Your task to perform on an android device: uninstall "DoorDash - Dasher" Image 0: 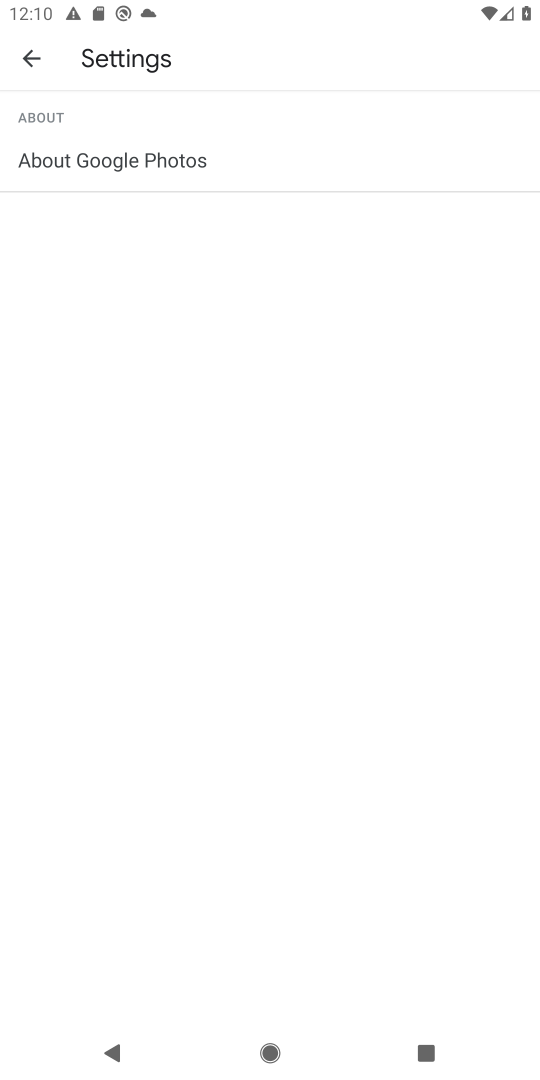
Step 0: press home button
Your task to perform on an android device: uninstall "DoorDash - Dasher" Image 1: 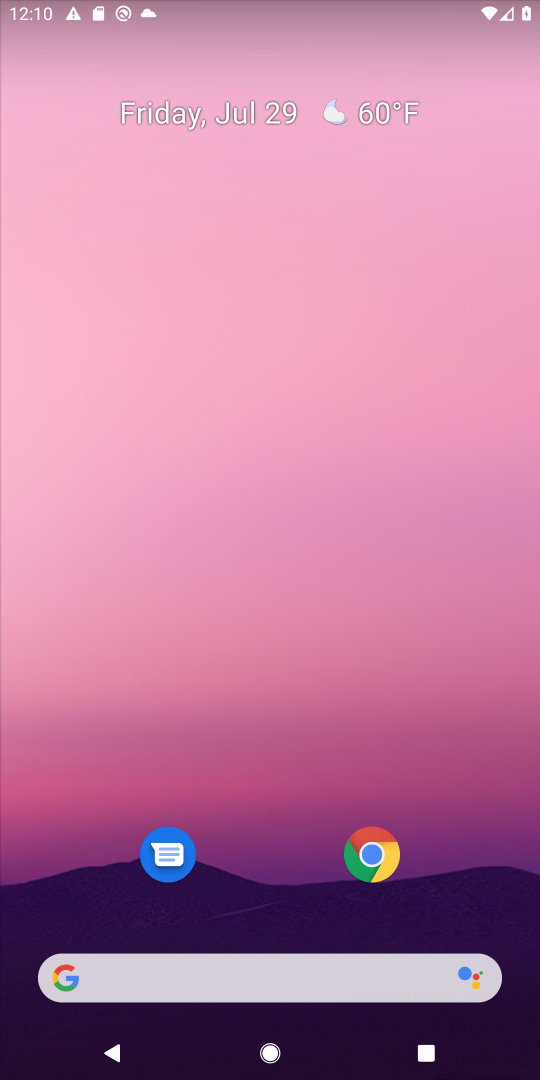
Step 1: drag from (281, 856) to (332, 229)
Your task to perform on an android device: uninstall "DoorDash - Dasher" Image 2: 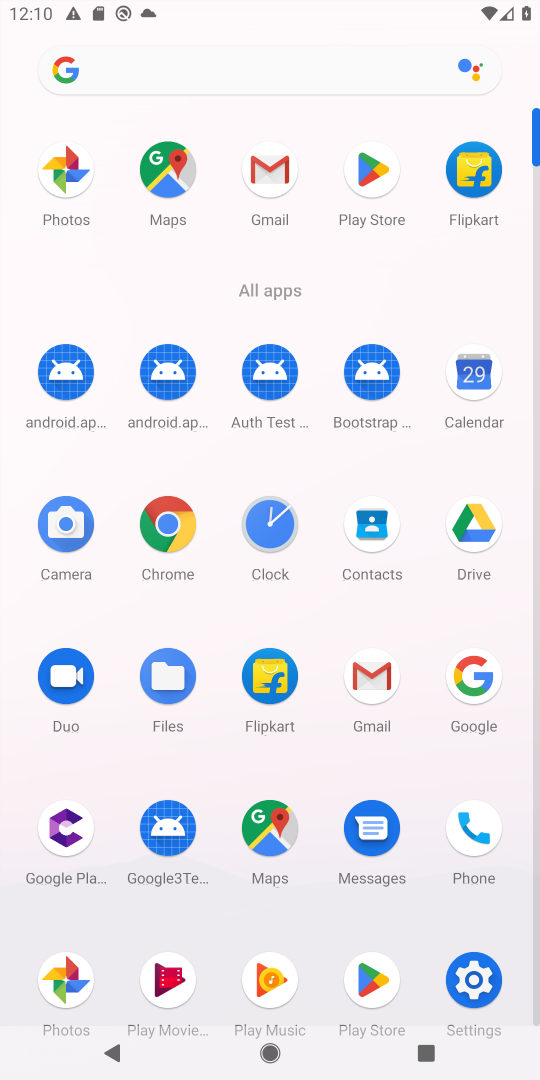
Step 2: click (365, 169)
Your task to perform on an android device: uninstall "DoorDash - Dasher" Image 3: 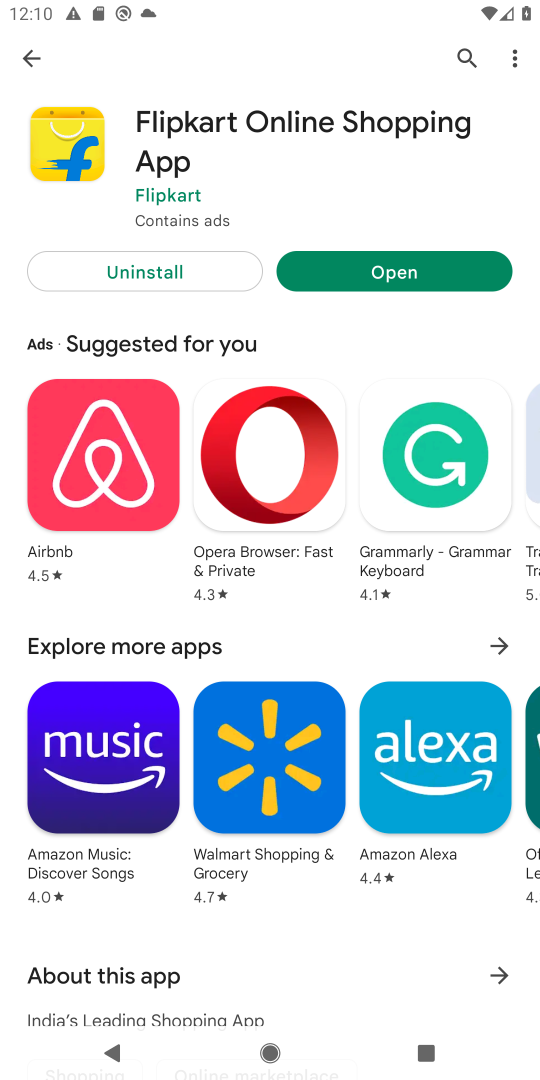
Step 3: click (465, 57)
Your task to perform on an android device: uninstall "DoorDash - Dasher" Image 4: 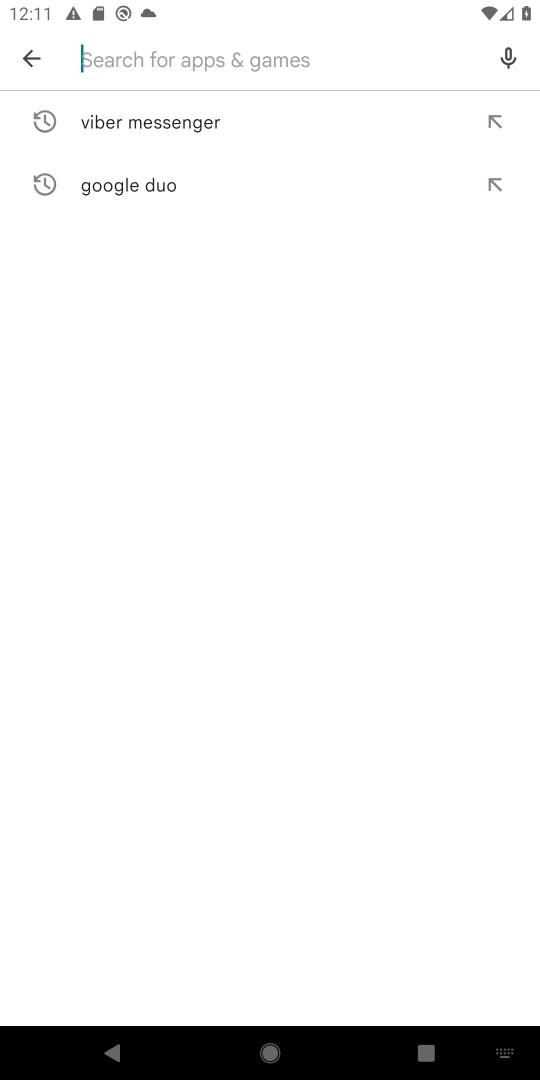
Step 4: type "DoorDash - Dasher"
Your task to perform on an android device: uninstall "DoorDash - Dasher" Image 5: 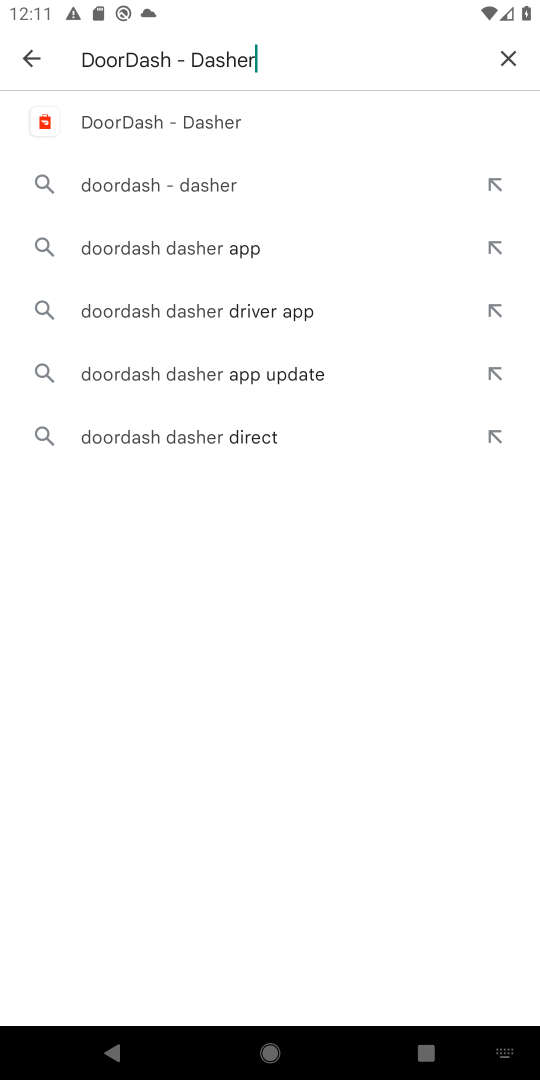
Step 5: click (151, 112)
Your task to perform on an android device: uninstall "DoorDash - Dasher" Image 6: 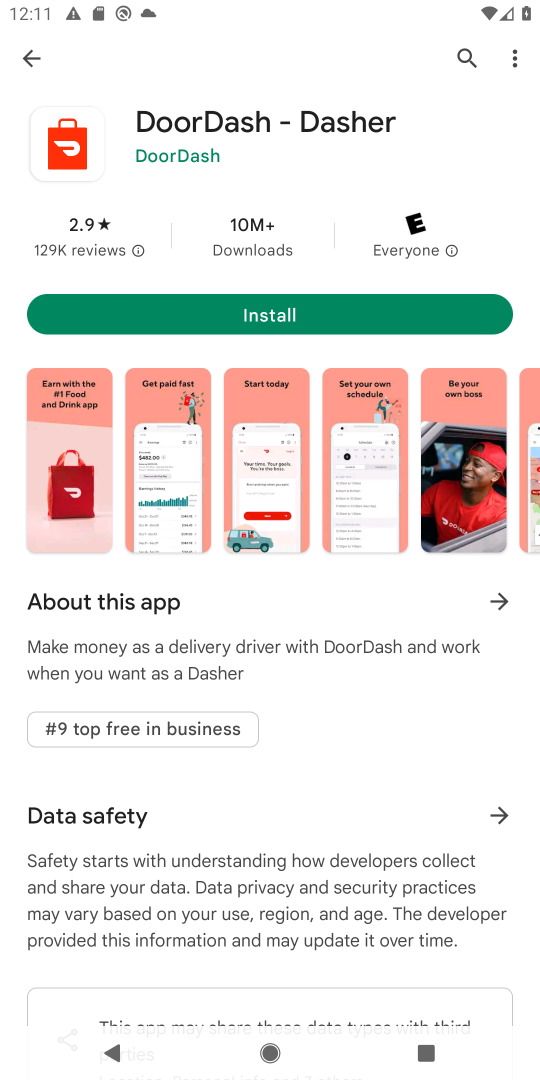
Step 6: task complete